Your task to perform on an android device: empty trash in the gmail app Image 0: 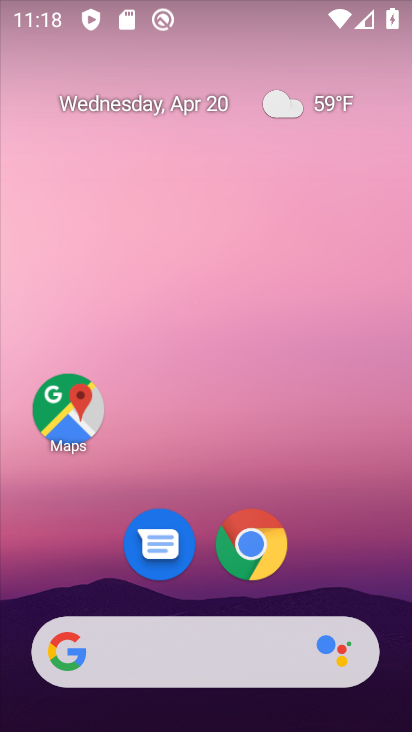
Step 0: drag from (280, 573) to (297, 136)
Your task to perform on an android device: empty trash in the gmail app Image 1: 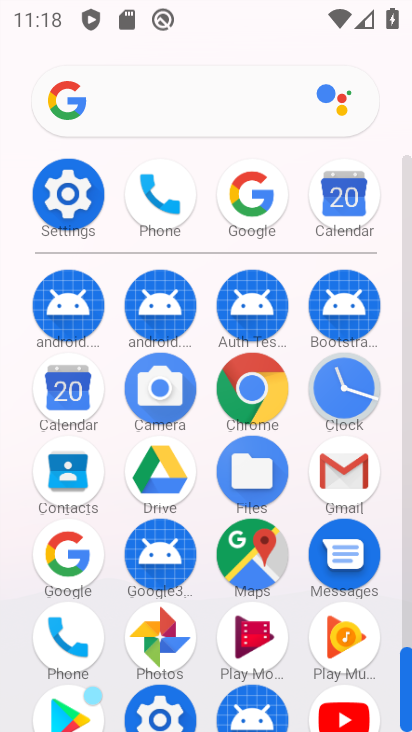
Step 1: drag from (347, 473) to (147, 210)
Your task to perform on an android device: empty trash in the gmail app Image 2: 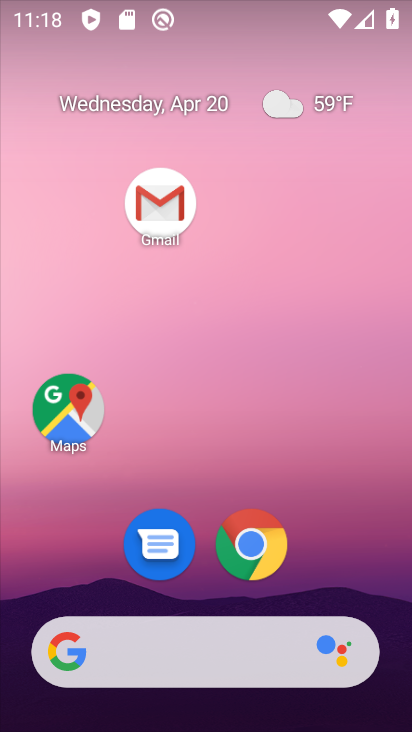
Step 2: click (151, 182)
Your task to perform on an android device: empty trash in the gmail app Image 3: 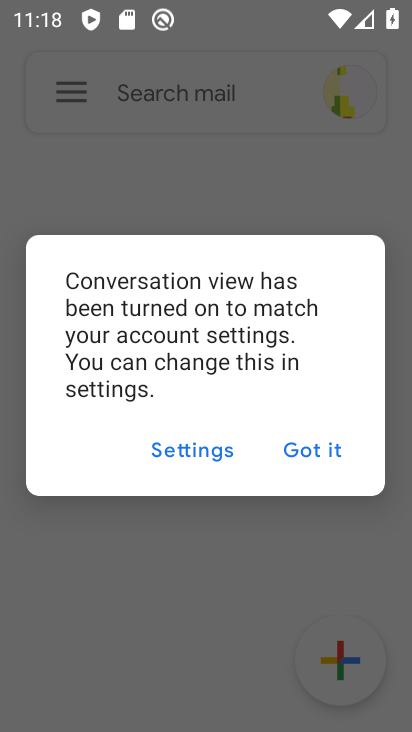
Step 3: click (339, 459)
Your task to perform on an android device: empty trash in the gmail app Image 4: 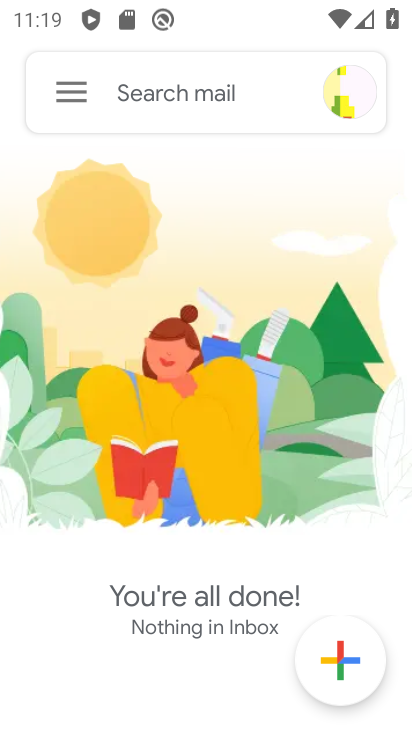
Step 4: click (69, 100)
Your task to perform on an android device: empty trash in the gmail app Image 5: 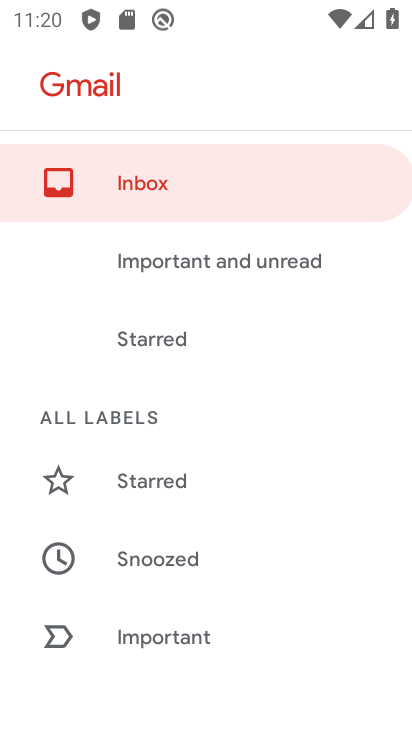
Step 5: drag from (236, 509) to (321, 88)
Your task to perform on an android device: empty trash in the gmail app Image 6: 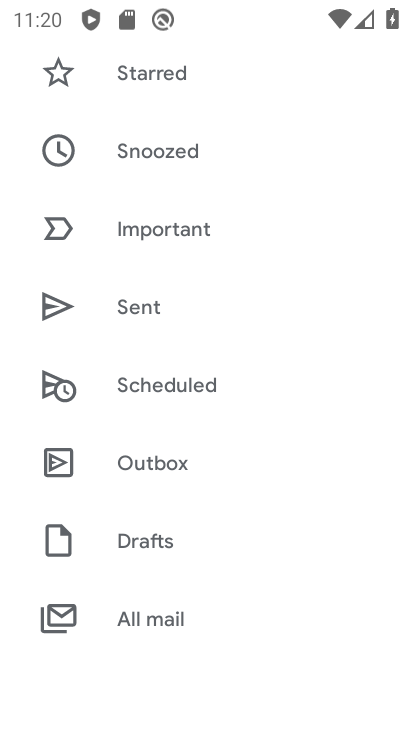
Step 6: drag from (230, 482) to (327, 30)
Your task to perform on an android device: empty trash in the gmail app Image 7: 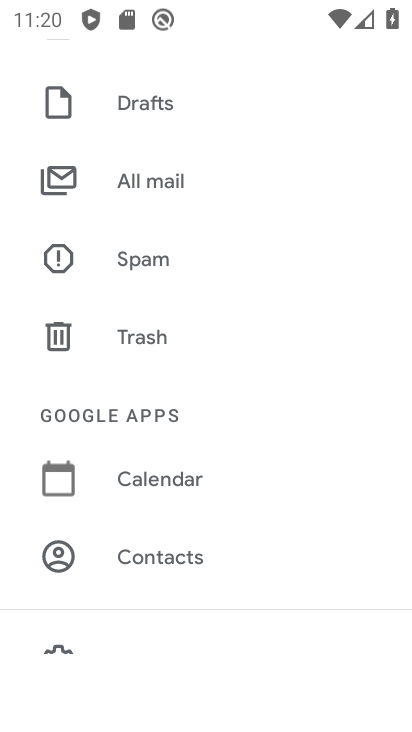
Step 7: drag from (214, 438) to (243, 354)
Your task to perform on an android device: empty trash in the gmail app Image 8: 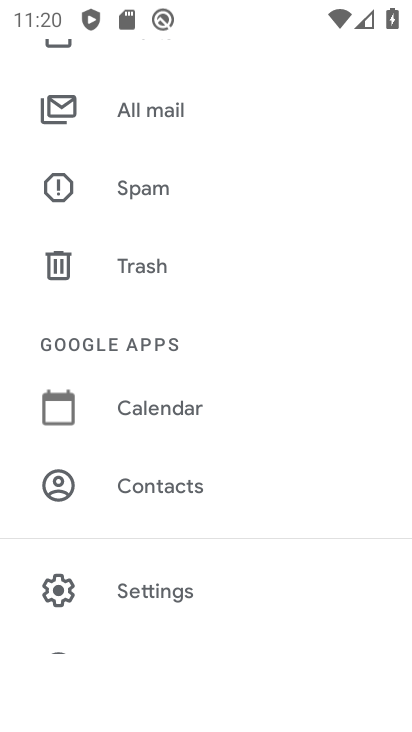
Step 8: click (197, 253)
Your task to perform on an android device: empty trash in the gmail app Image 9: 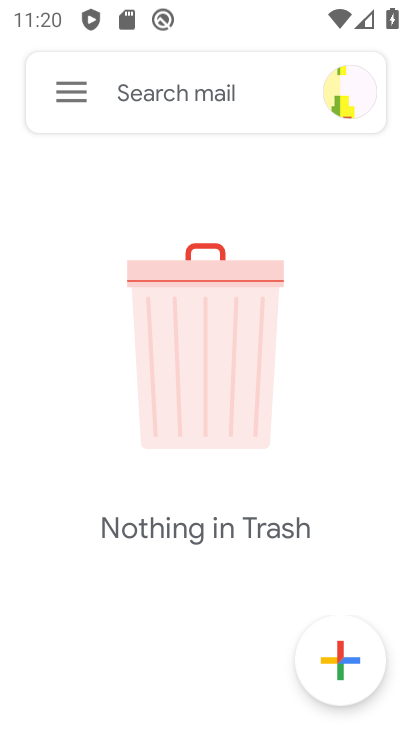
Step 9: task complete